Your task to perform on an android device: Go to location settings Image 0: 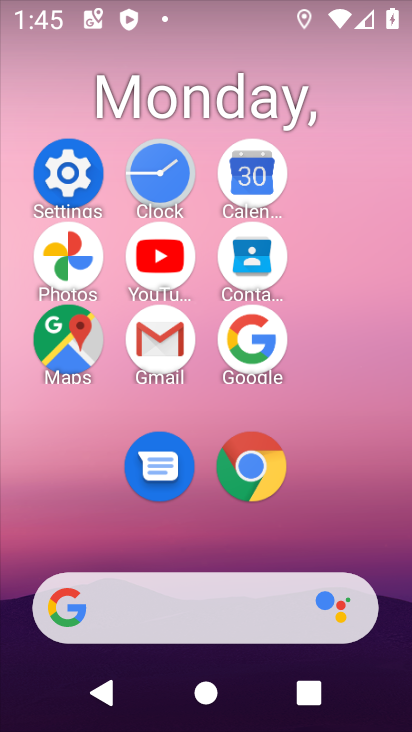
Step 0: click (90, 175)
Your task to perform on an android device: Go to location settings Image 1: 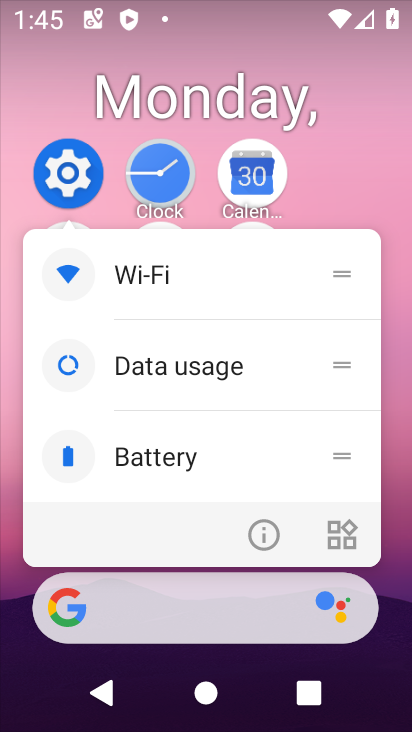
Step 1: click (98, 181)
Your task to perform on an android device: Go to location settings Image 2: 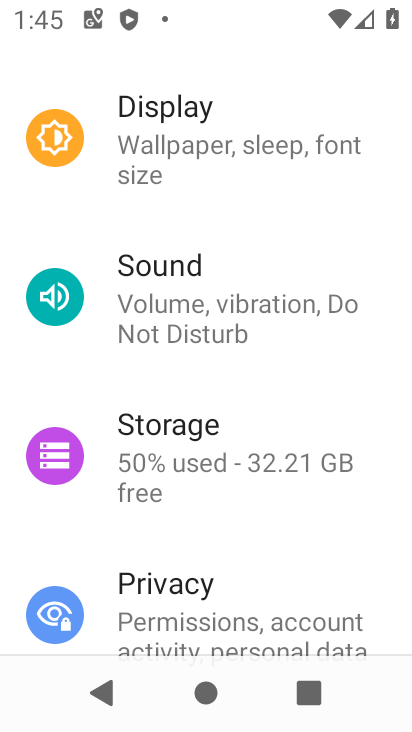
Step 2: drag from (244, 525) to (237, 112)
Your task to perform on an android device: Go to location settings Image 3: 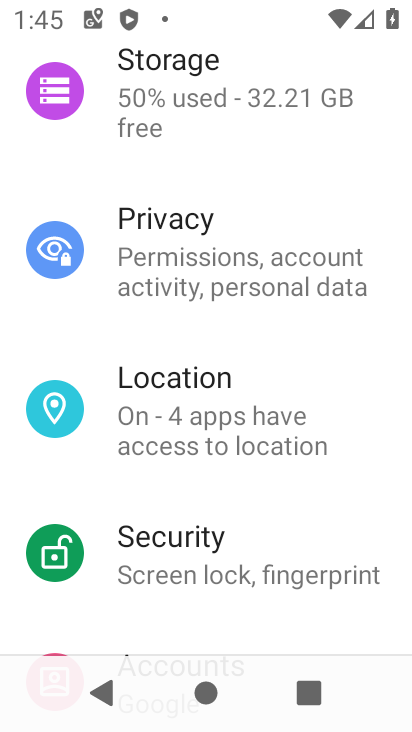
Step 3: click (214, 393)
Your task to perform on an android device: Go to location settings Image 4: 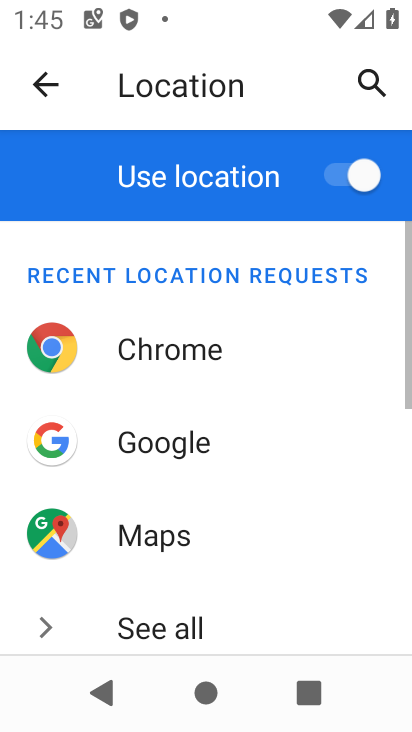
Step 4: task complete